Your task to perform on an android device: check data usage Image 0: 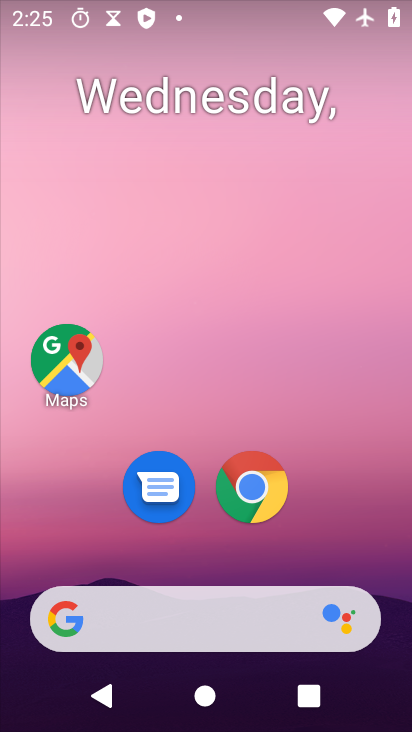
Step 0: drag from (360, 667) to (294, 282)
Your task to perform on an android device: check data usage Image 1: 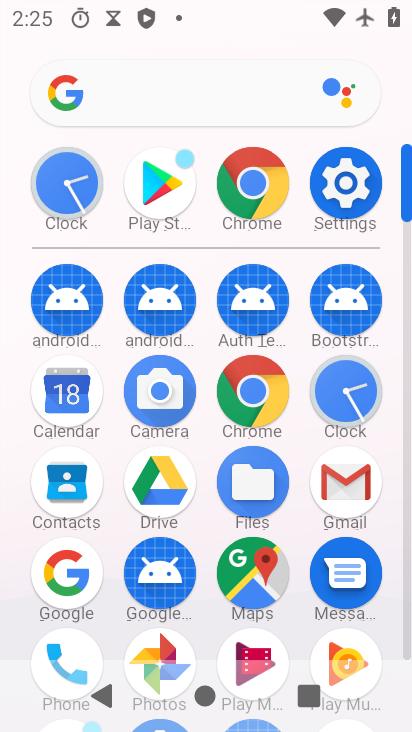
Step 1: click (359, 192)
Your task to perform on an android device: check data usage Image 2: 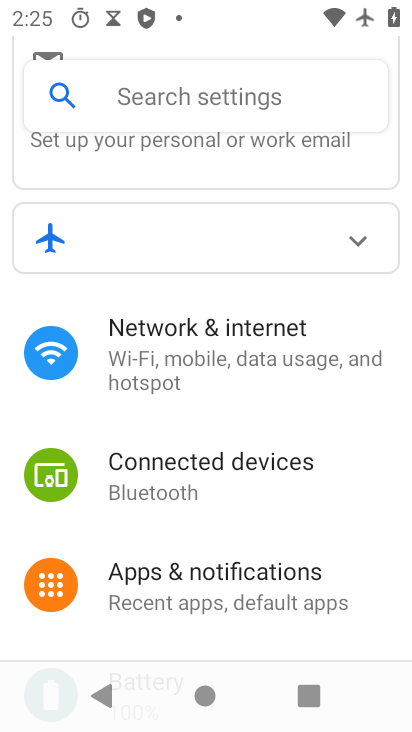
Step 2: click (194, 348)
Your task to perform on an android device: check data usage Image 3: 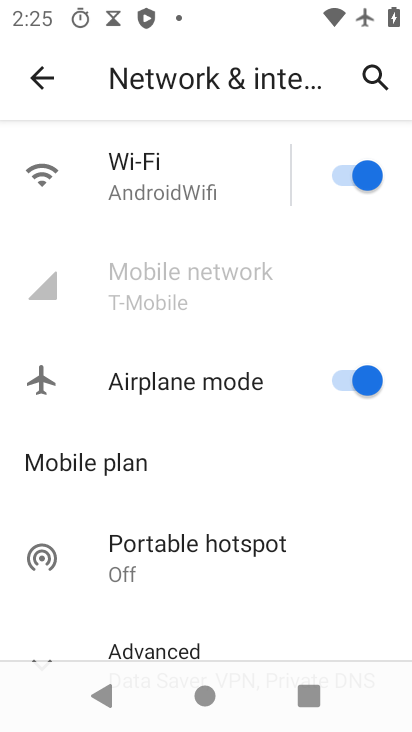
Step 3: click (29, 81)
Your task to perform on an android device: check data usage Image 4: 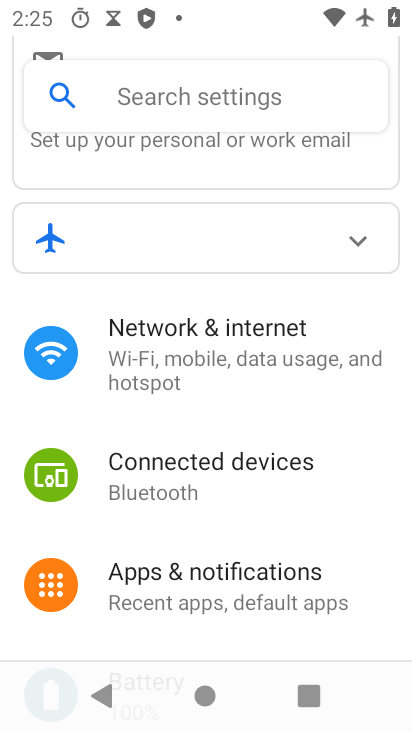
Step 4: press home button
Your task to perform on an android device: check data usage Image 5: 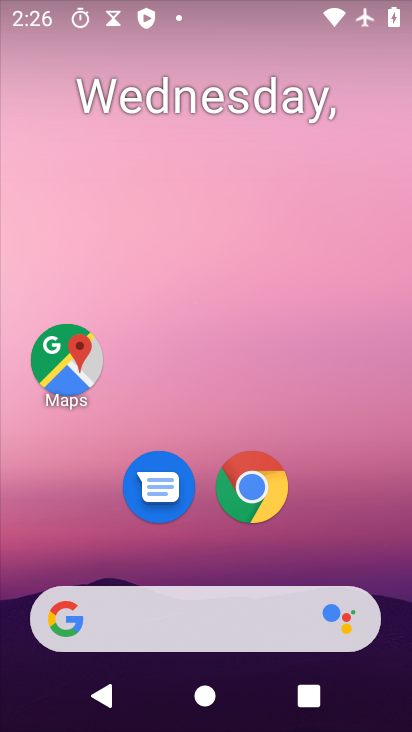
Step 5: drag from (349, 446) to (257, 45)
Your task to perform on an android device: check data usage Image 6: 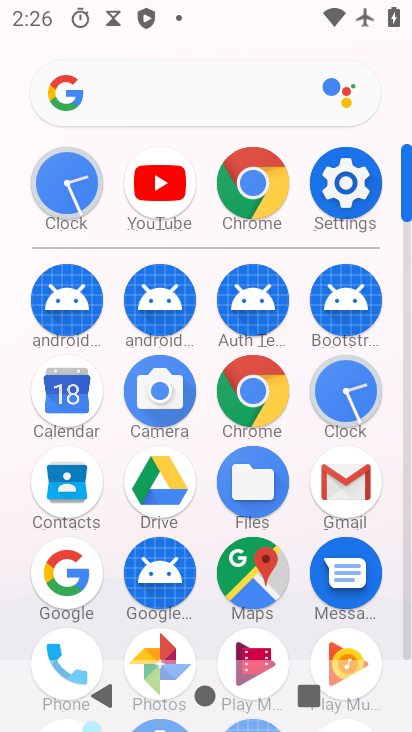
Step 6: click (328, 194)
Your task to perform on an android device: check data usage Image 7: 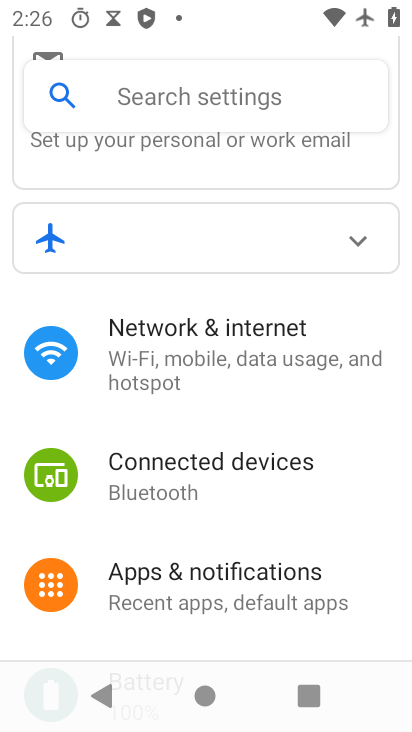
Step 7: click (193, 363)
Your task to perform on an android device: check data usage Image 8: 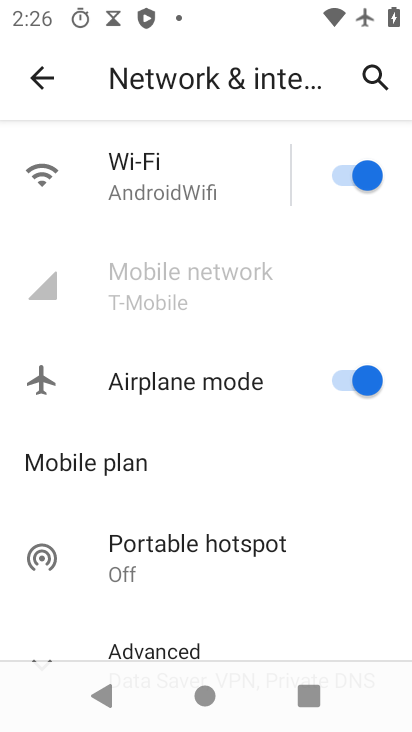
Step 8: task complete